Your task to perform on an android device: stop showing notifications on the lock screen Image 0: 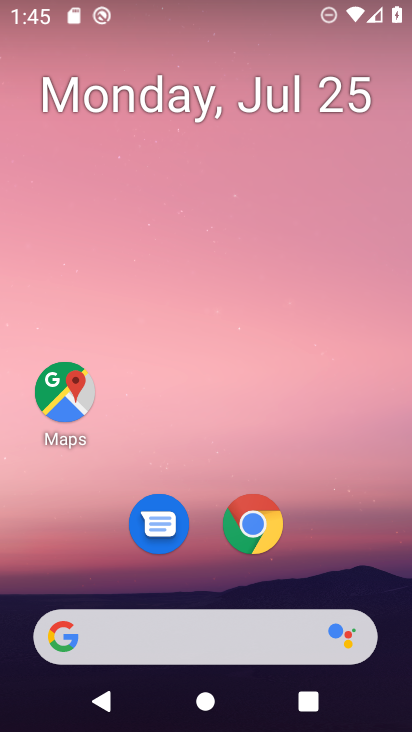
Step 0: press home button
Your task to perform on an android device: stop showing notifications on the lock screen Image 1: 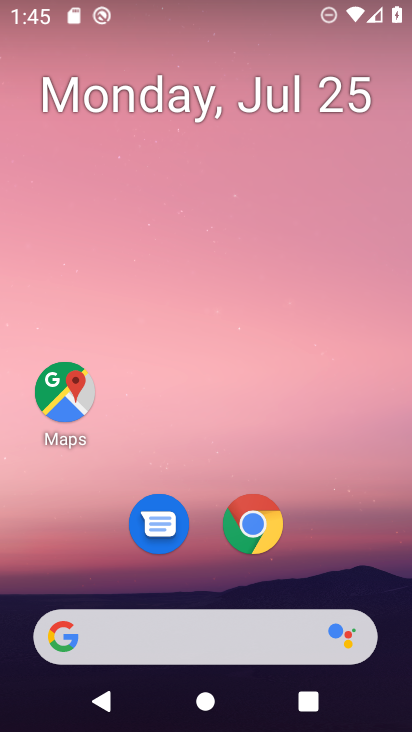
Step 1: drag from (199, 599) to (211, 110)
Your task to perform on an android device: stop showing notifications on the lock screen Image 2: 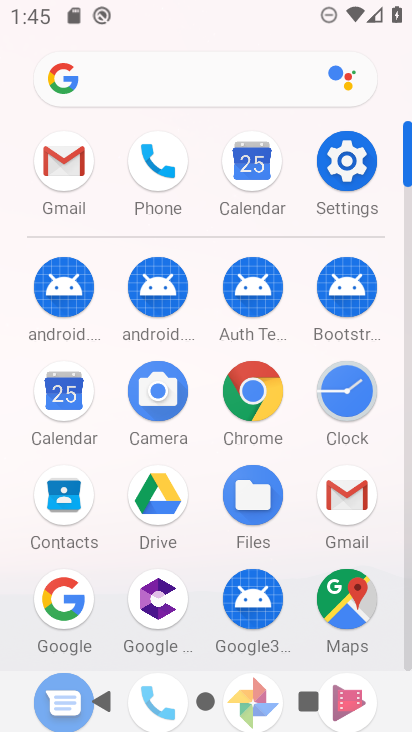
Step 2: click (338, 168)
Your task to perform on an android device: stop showing notifications on the lock screen Image 3: 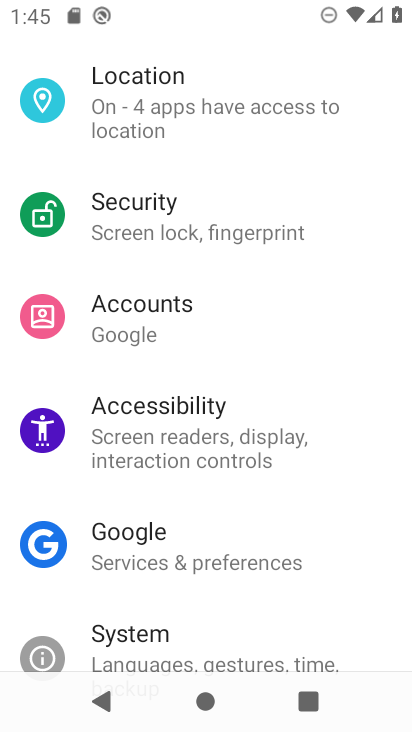
Step 3: drag from (284, 163) to (278, 490)
Your task to perform on an android device: stop showing notifications on the lock screen Image 4: 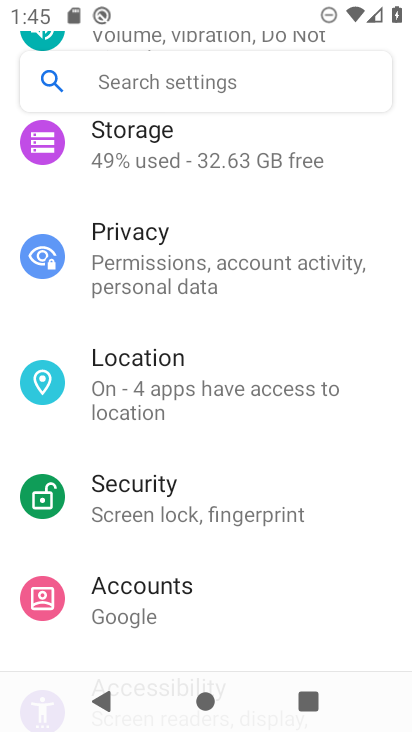
Step 4: drag from (260, 204) to (298, 492)
Your task to perform on an android device: stop showing notifications on the lock screen Image 5: 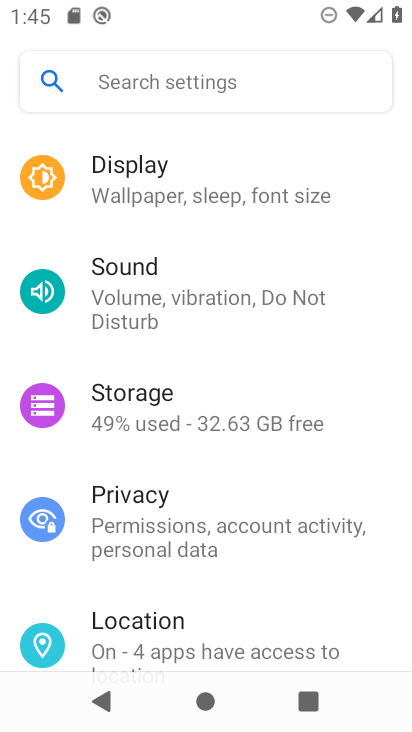
Step 5: drag from (298, 249) to (277, 611)
Your task to perform on an android device: stop showing notifications on the lock screen Image 6: 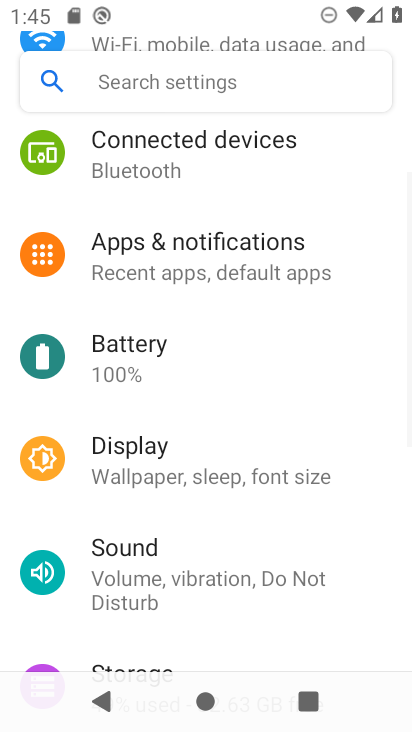
Step 6: click (224, 260)
Your task to perform on an android device: stop showing notifications on the lock screen Image 7: 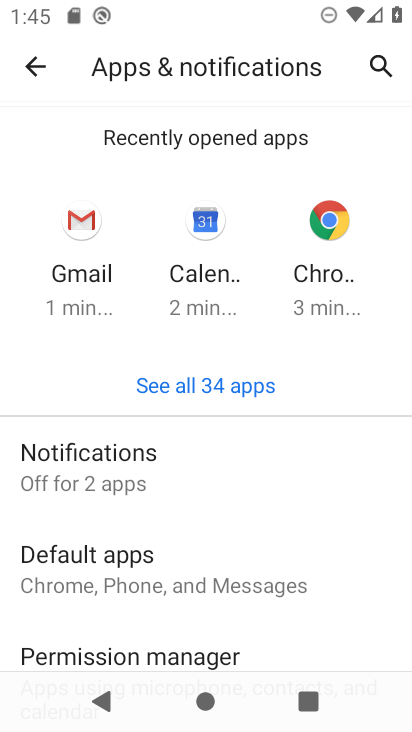
Step 7: click (132, 472)
Your task to perform on an android device: stop showing notifications on the lock screen Image 8: 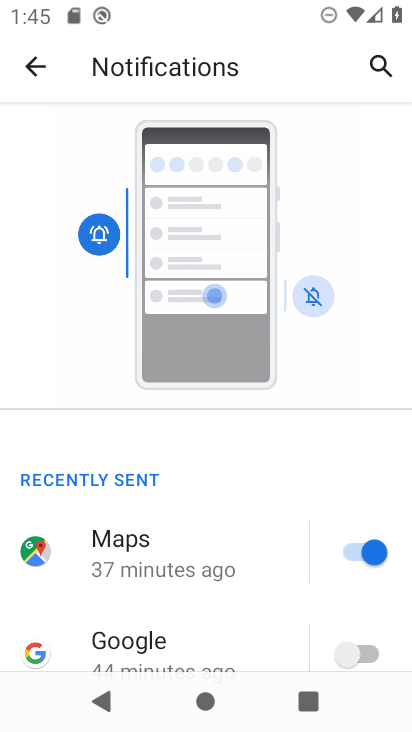
Step 8: drag from (210, 637) to (295, 67)
Your task to perform on an android device: stop showing notifications on the lock screen Image 9: 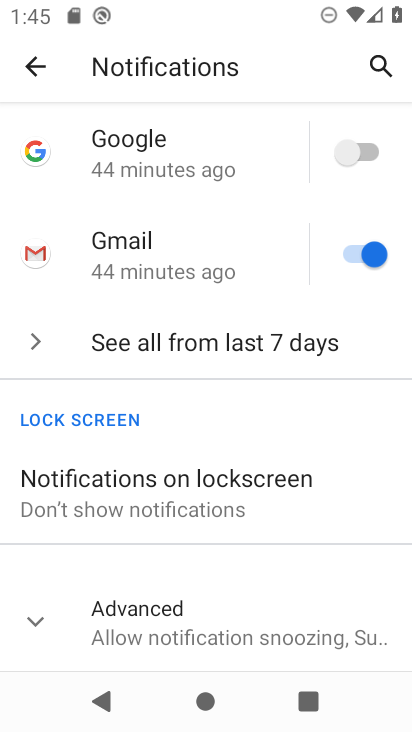
Step 9: click (186, 494)
Your task to perform on an android device: stop showing notifications on the lock screen Image 10: 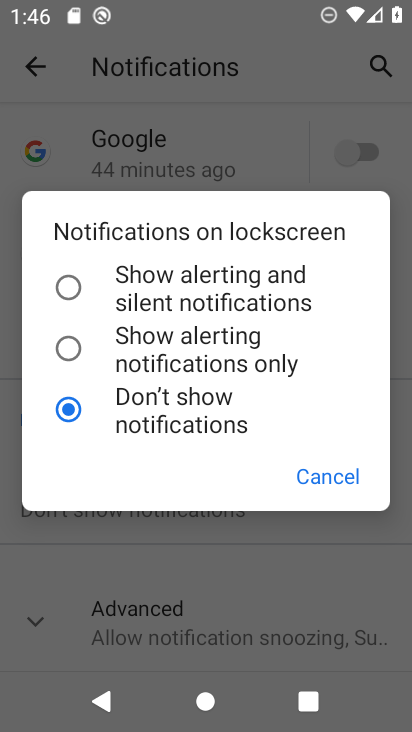
Step 10: task complete